Your task to perform on an android device: see sites visited before in the chrome app Image 0: 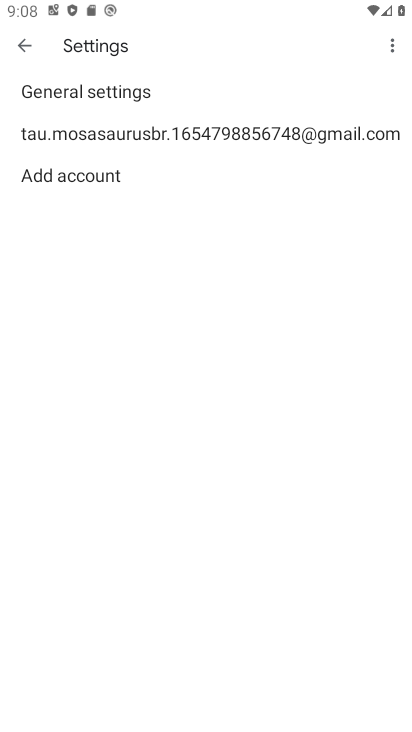
Step 0: press home button
Your task to perform on an android device: see sites visited before in the chrome app Image 1: 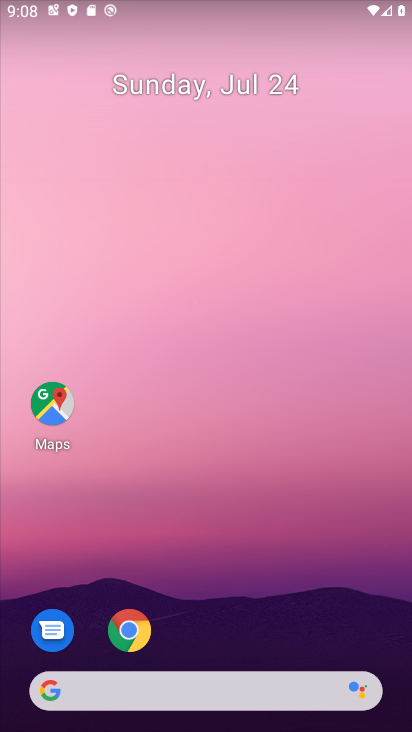
Step 1: click (139, 627)
Your task to perform on an android device: see sites visited before in the chrome app Image 2: 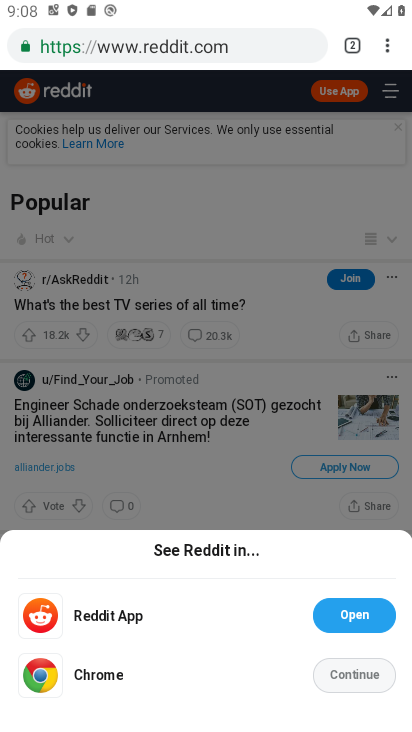
Step 2: click (335, 674)
Your task to perform on an android device: see sites visited before in the chrome app Image 3: 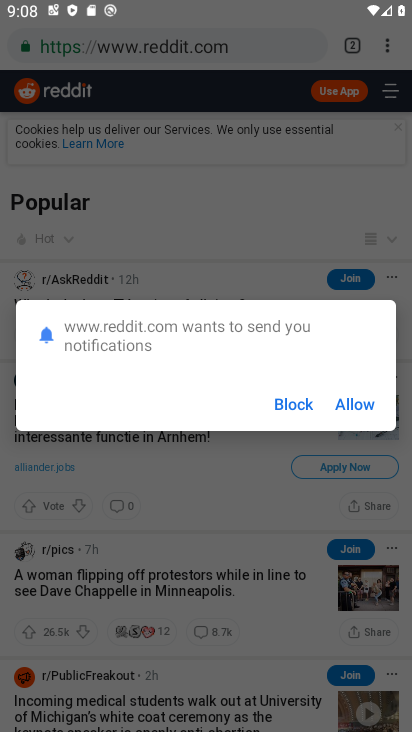
Step 3: click (347, 400)
Your task to perform on an android device: see sites visited before in the chrome app Image 4: 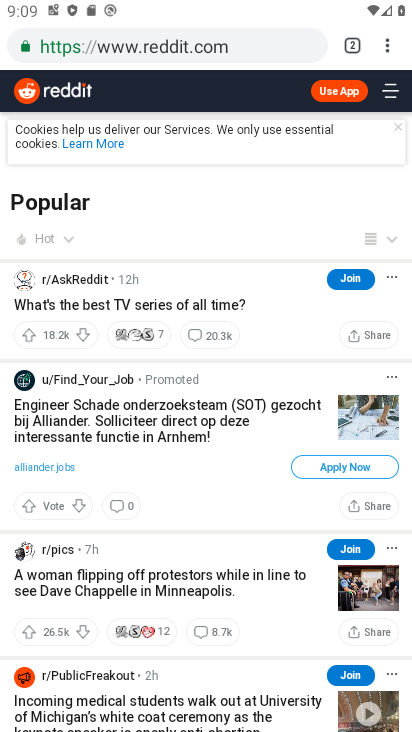
Step 4: click (382, 45)
Your task to perform on an android device: see sites visited before in the chrome app Image 5: 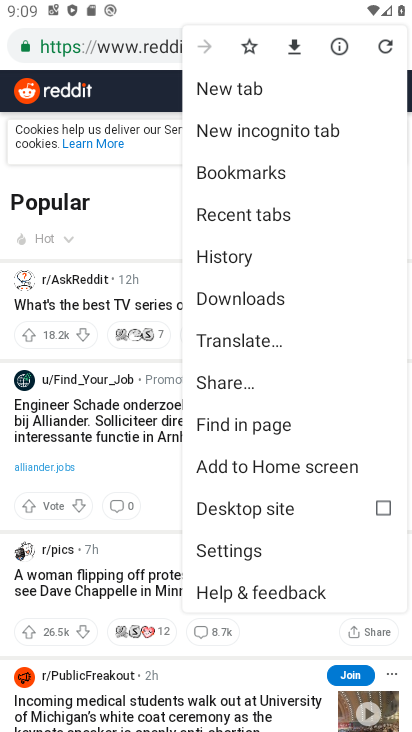
Step 5: click (276, 221)
Your task to perform on an android device: see sites visited before in the chrome app Image 6: 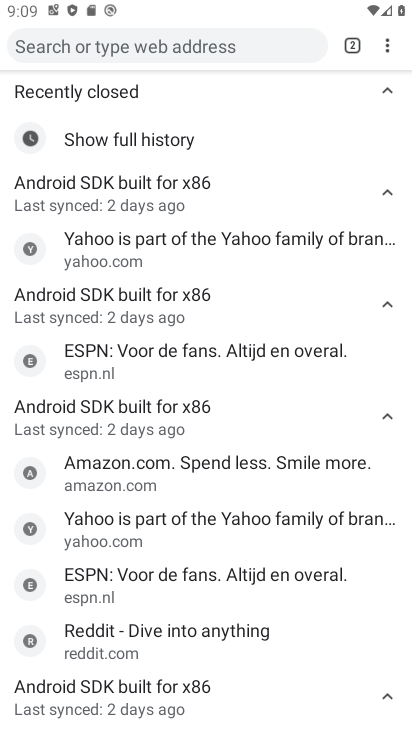
Step 6: task complete